Your task to perform on an android device: Open the phone app and click the voicemail tab. Image 0: 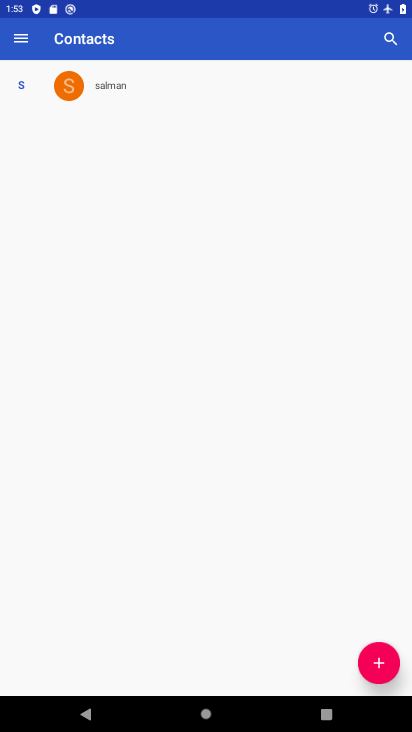
Step 0: press home button
Your task to perform on an android device: Open the phone app and click the voicemail tab. Image 1: 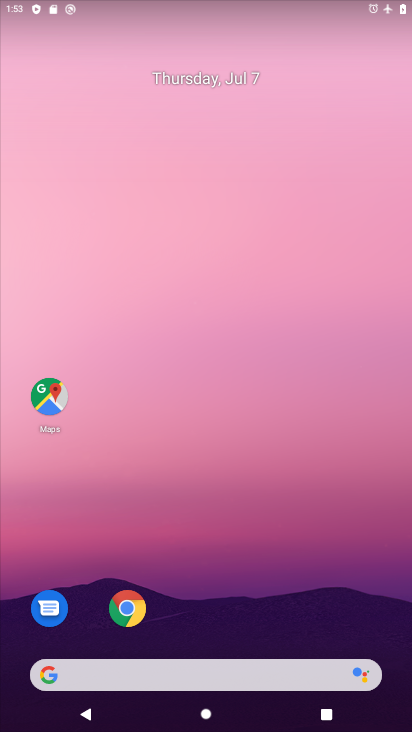
Step 1: drag from (247, 725) to (228, 73)
Your task to perform on an android device: Open the phone app and click the voicemail tab. Image 2: 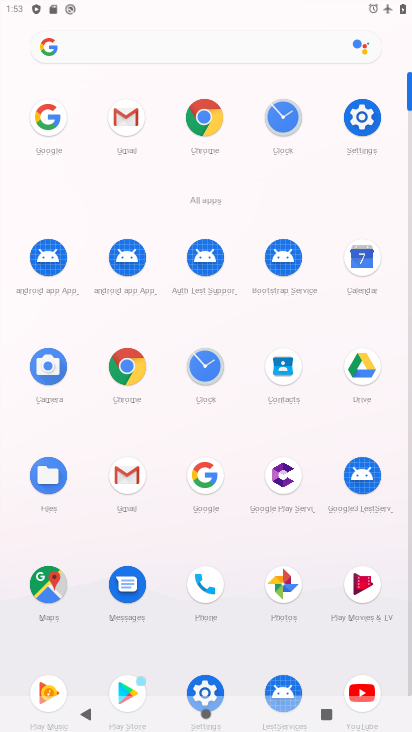
Step 2: click (209, 583)
Your task to perform on an android device: Open the phone app and click the voicemail tab. Image 3: 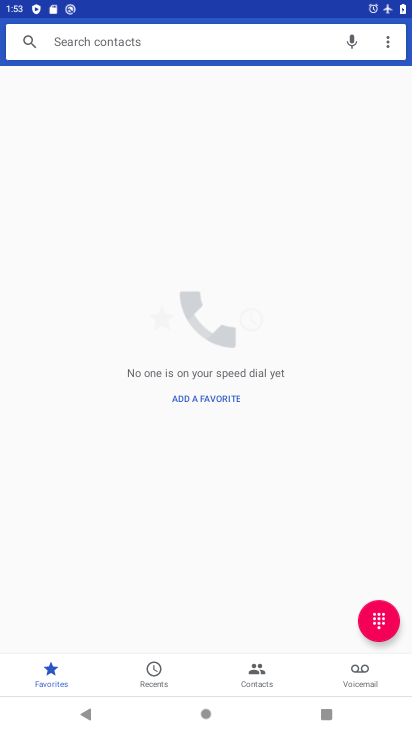
Step 3: click (355, 672)
Your task to perform on an android device: Open the phone app and click the voicemail tab. Image 4: 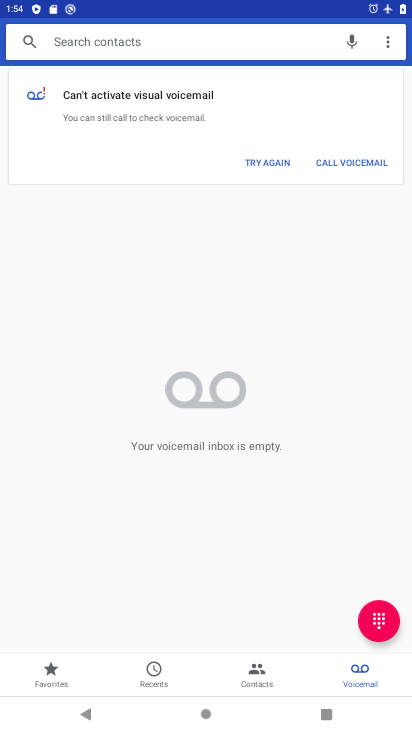
Step 4: task complete